Your task to perform on an android device: Is it going to rain tomorrow? Image 0: 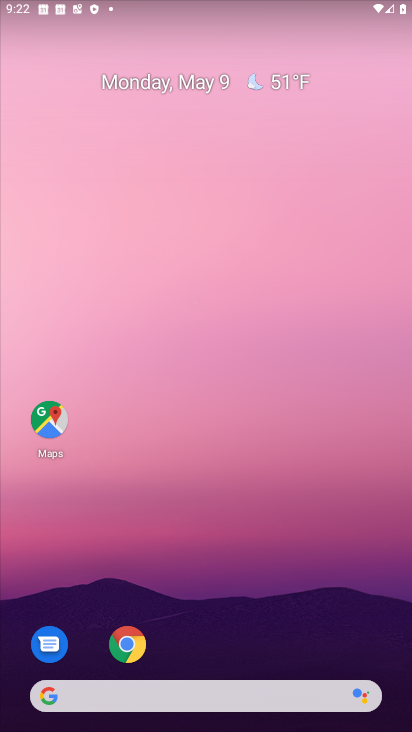
Step 0: drag from (184, 673) to (171, 2)
Your task to perform on an android device: Is it going to rain tomorrow? Image 1: 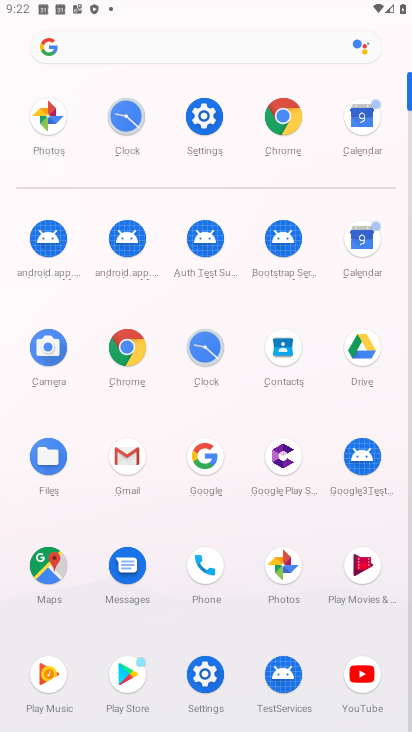
Step 1: click (182, 459)
Your task to perform on an android device: Is it going to rain tomorrow? Image 2: 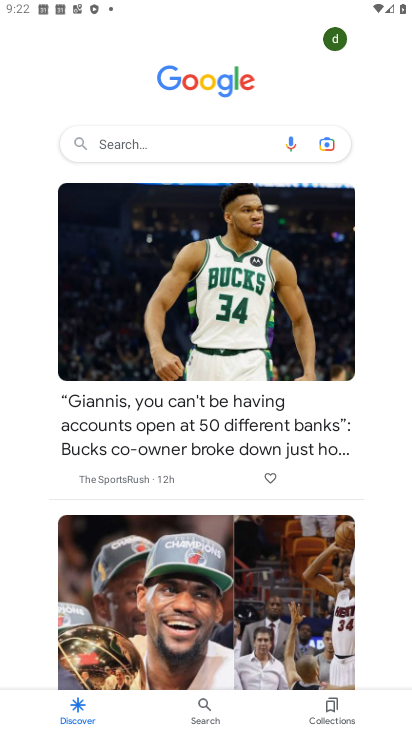
Step 2: click (86, 141)
Your task to perform on an android device: Is it going to rain tomorrow? Image 3: 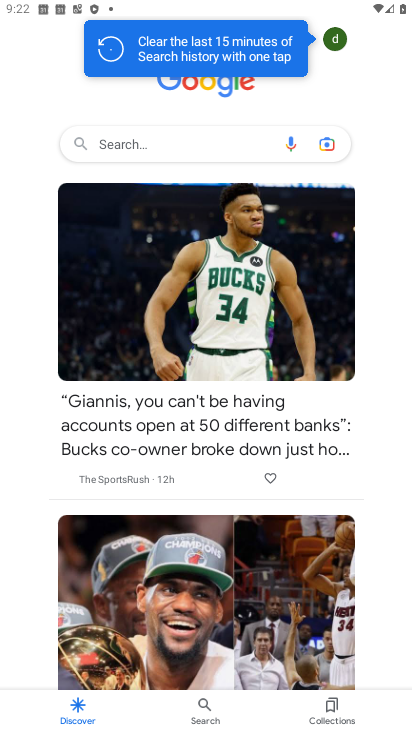
Step 3: click (134, 147)
Your task to perform on an android device: Is it going to rain tomorrow? Image 4: 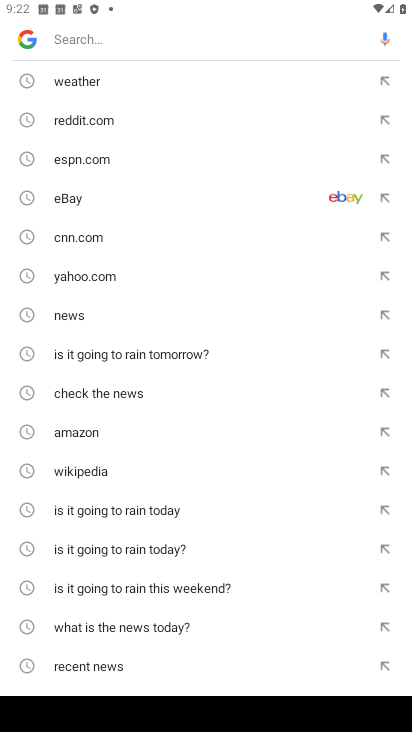
Step 4: click (91, 78)
Your task to perform on an android device: Is it going to rain tomorrow? Image 5: 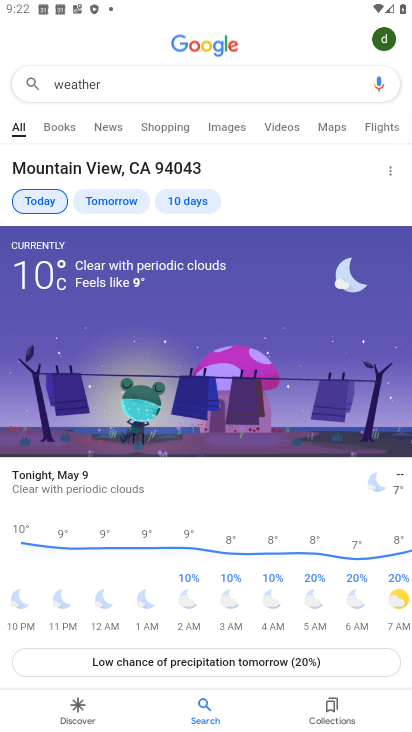
Step 5: click (99, 199)
Your task to perform on an android device: Is it going to rain tomorrow? Image 6: 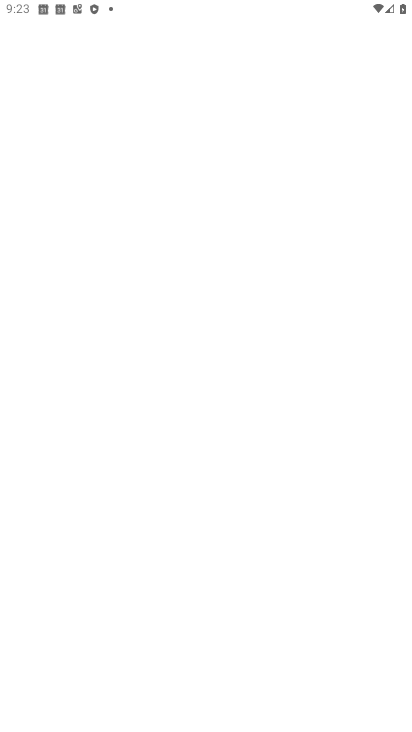
Step 6: click (102, 206)
Your task to perform on an android device: Is it going to rain tomorrow? Image 7: 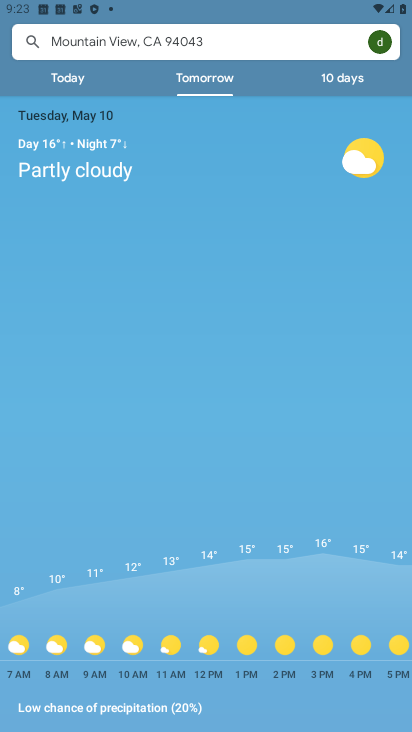
Step 7: task complete